Your task to perform on an android device: add a label to a message in the gmail app Image 0: 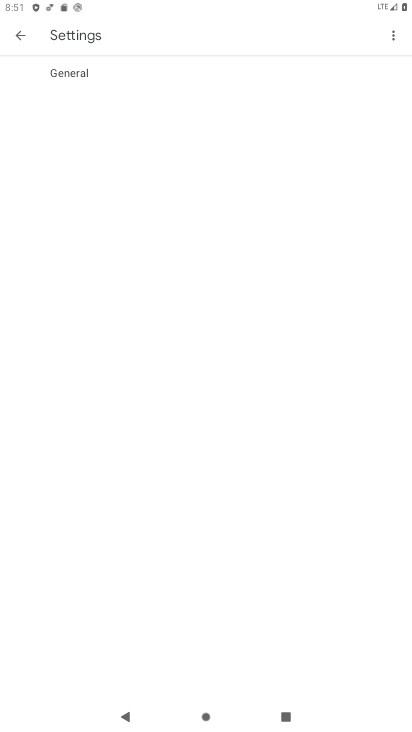
Step 0: press home button
Your task to perform on an android device: add a label to a message in the gmail app Image 1: 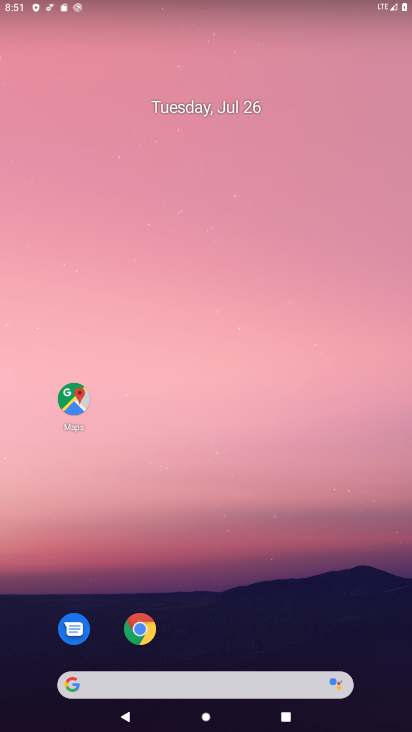
Step 1: drag from (193, 685) to (267, 9)
Your task to perform on an android device: add a label to a message in the gmail app Image 2: 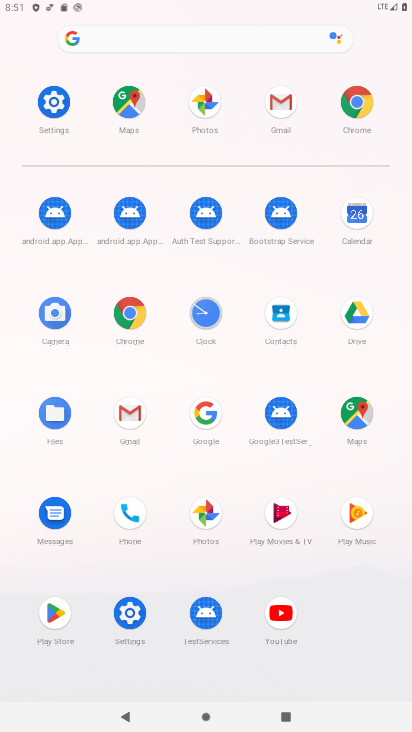
Step 2: click (125, 420)
Your task to perform on an android device: add a label to a message in the gmail app Image 3: 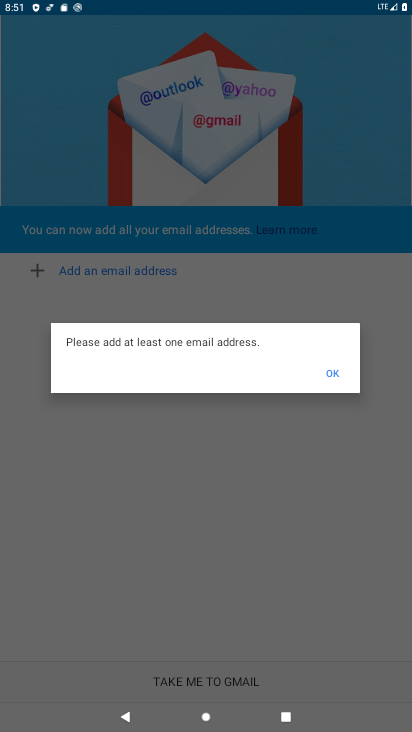
Step 3: click (330, 373)
Your task to perform on an android device: add a label to a message in the gmail app Image 4: 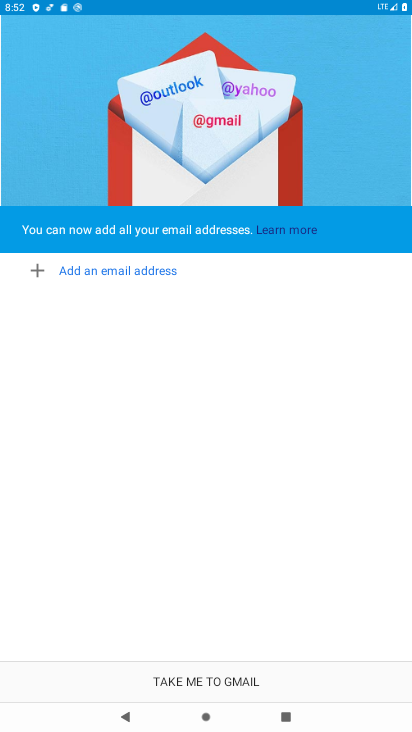
Step 4: task complete